Your task to perform on an android device: turn off improve location accuracy Image 0: 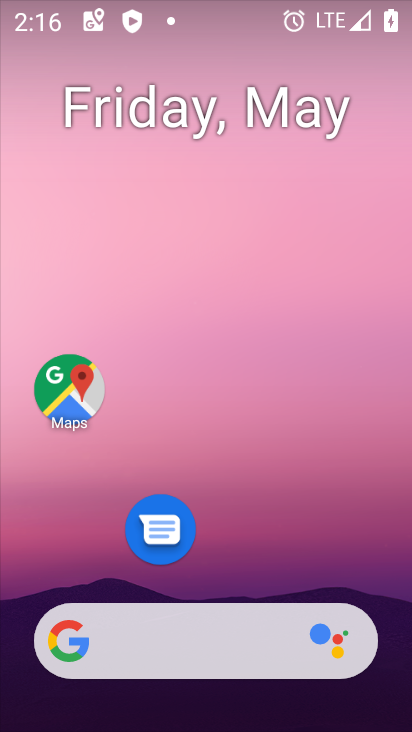
Step 0: drag from (212, 580) to (274, 205)
Your task to perform on an android device: turn off improve location accuracy Image 1: 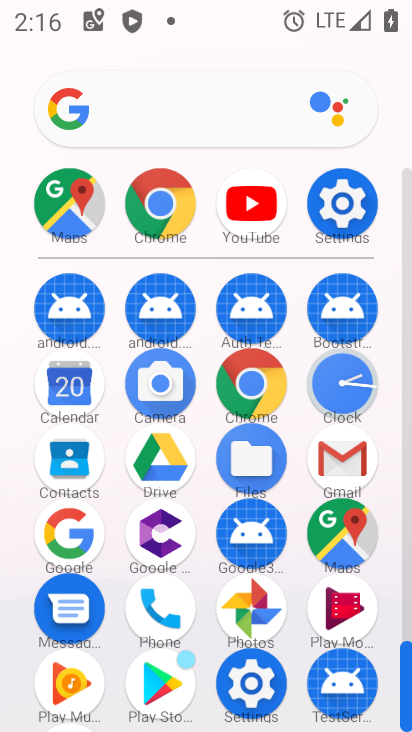
Step 1: click (332, 191)
Your task to perform on an android device: turn off improve location accuracy Image 2: 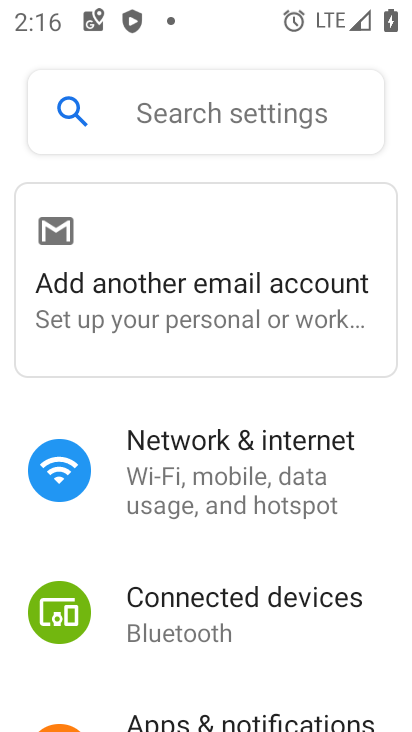
Step 2: drag from (205, 510) to (212, 215)
Your task to perform on an android device: turn off improve location accuracy Image 3: 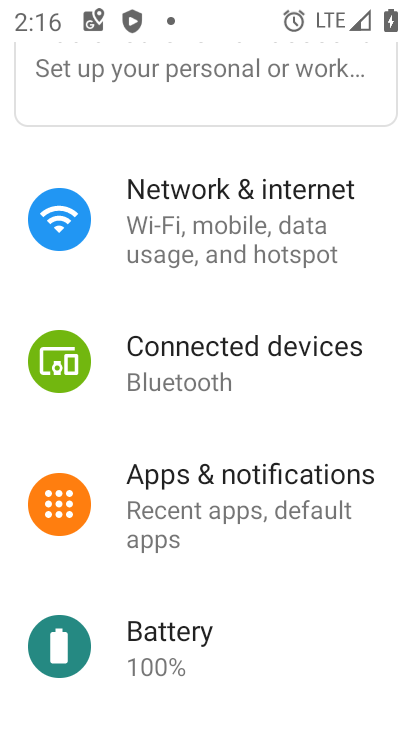
Step 3: drag from (233, 382) to (253, 204)
Your task to perform on an android device: turn off improve location accuracy Image 4: 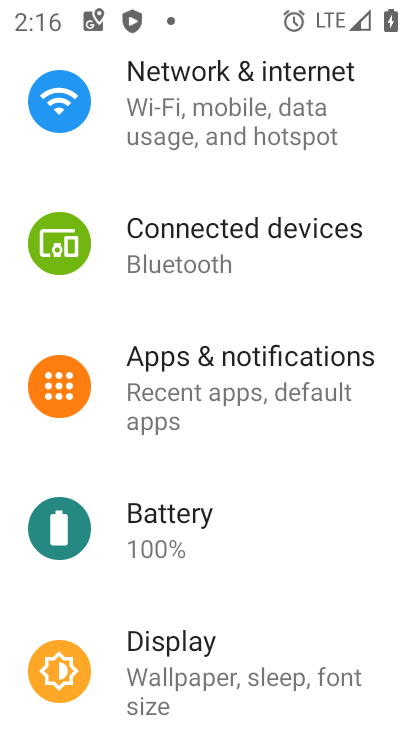
Step 4: drag from (233, 596) to (271, 292)
Your task to perform on an android device: turn off improve location accuracy Image 5: 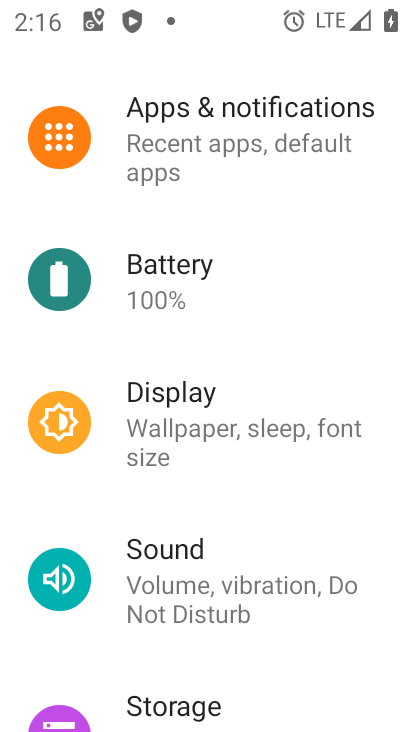
Step 5: drag from (257, 616) to (298, 336)
Your task to perform on an android device: turn off improve location accuracy Image 6: 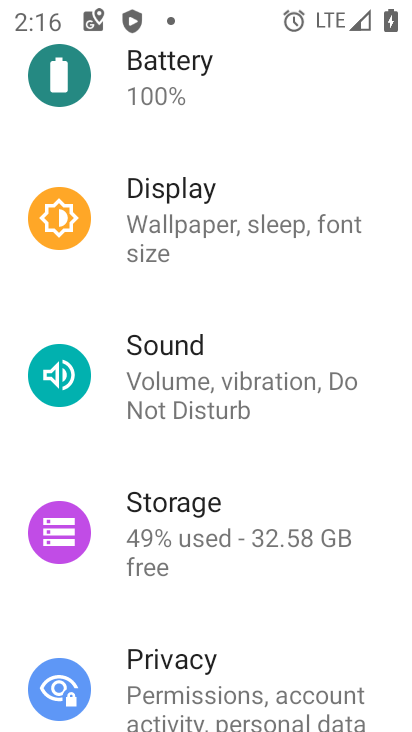
Step 6: drag from (263, 624) to (285, 255)
Your task to perform on an android device: turn off improve location accuracy Image 7: 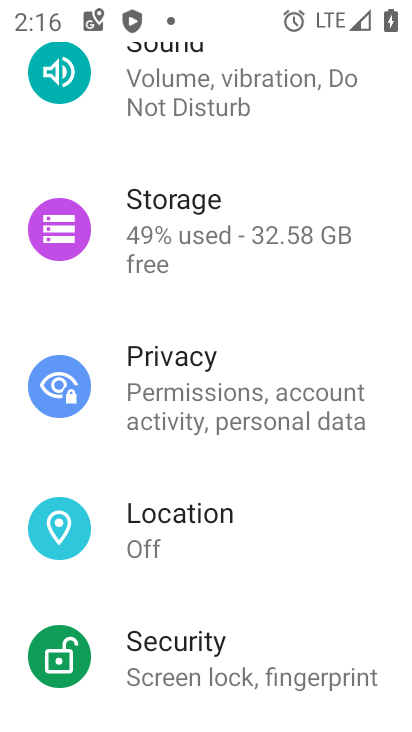
Step 7: drag from (250, 599) to (304, 297)
Your task to perform on an android device: turn off improve location accuracy Image 8: 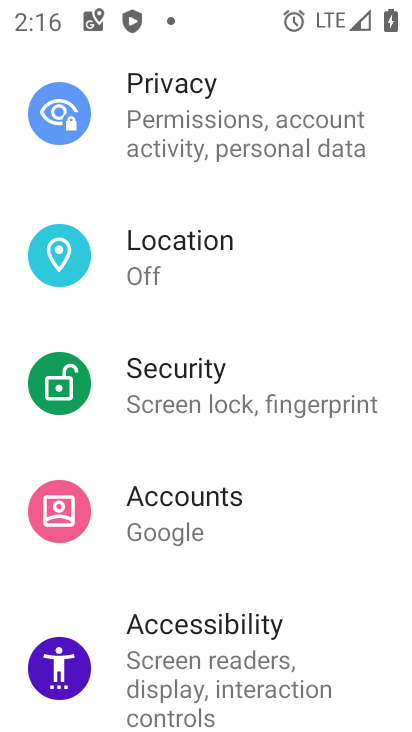
Step 8: drag from (186, 612) to (280, 298)
Your task to perform on an android device: turn off improve location accuracy Image 9: 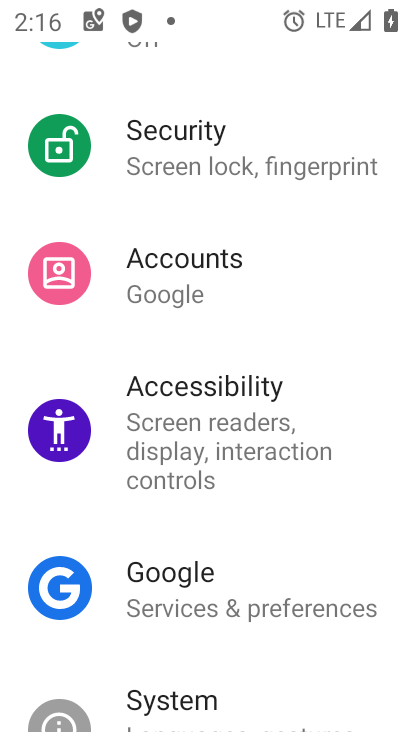
Step 9: drag from (258, 252) to (368, 719)
Your task to perform on an android device: turn off improve location accuracy Image 10: 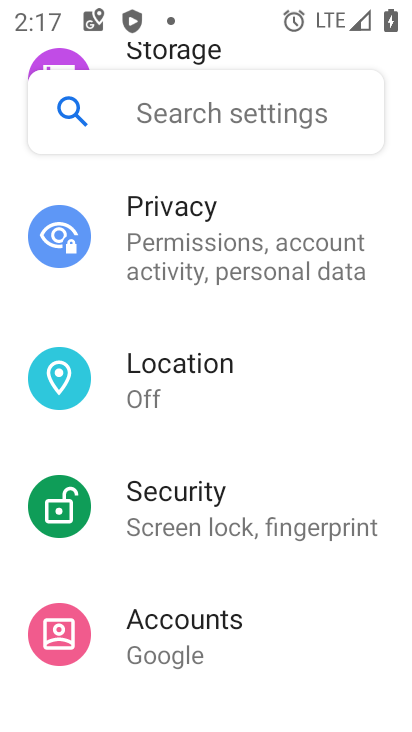
Step 10: click (184, 364)
Your task to perform on an android device: turn off improve location accuracy Image 11: 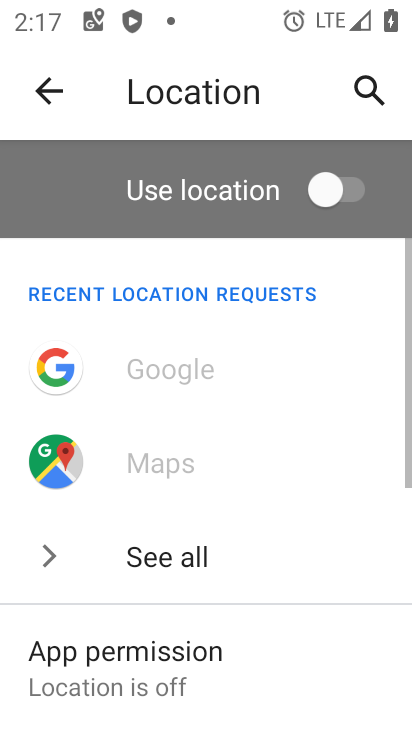
Step 11: drag from (220, 516) to (219, 261)
Your task to perform on an android device: turn off improve location accuracy Image 12: 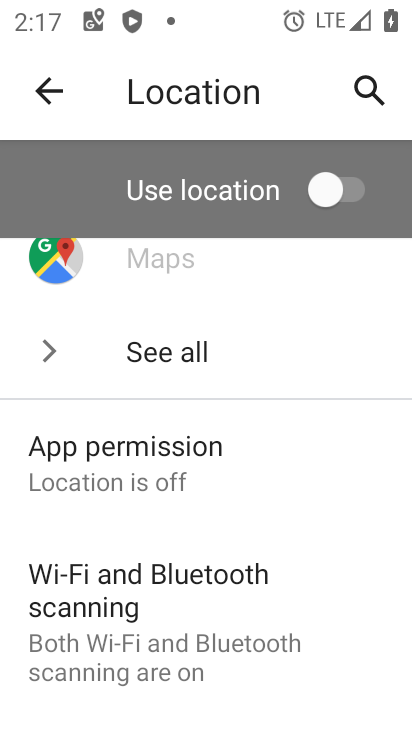
Step 12: drag from (172, 582) to (177, 430)
Your task to perform on an android device: turn off improve location accuracy Image 13: 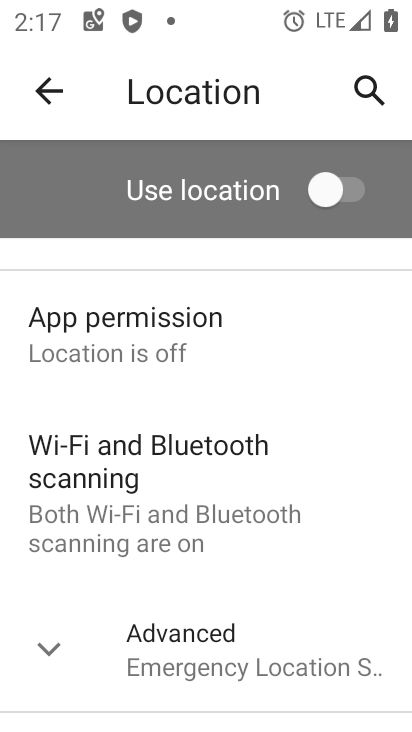
Step 13: click (155, 646)
Your task to perform on an android device: turn off improve location accuracy Image 14: 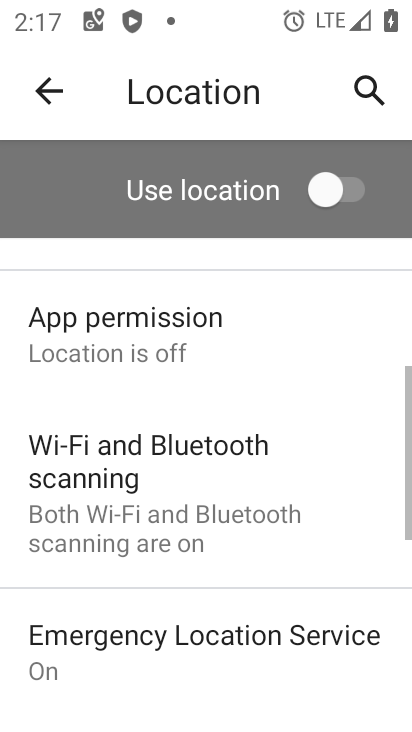
Step 14: drag from (155, 646) to (205, 280)
Your task to perform on an android device: turn off improve location accuracy Image 15: 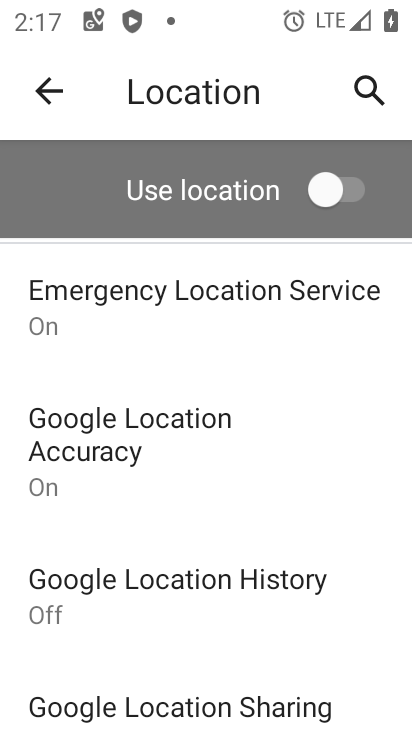
Step 15: click (132, 472)
Your task to perform on an android device: turn off improve location accuracy Image 16: 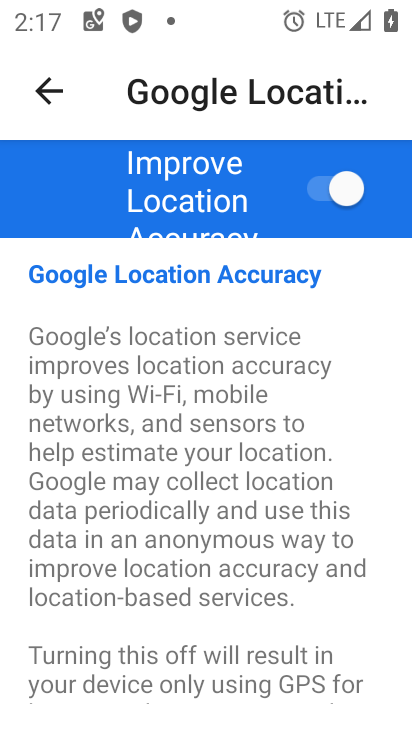
Step 16: drag from (288, 541) to (294, 305)
Your task to perform on an android device: turn off improve location accuracy Image 17: 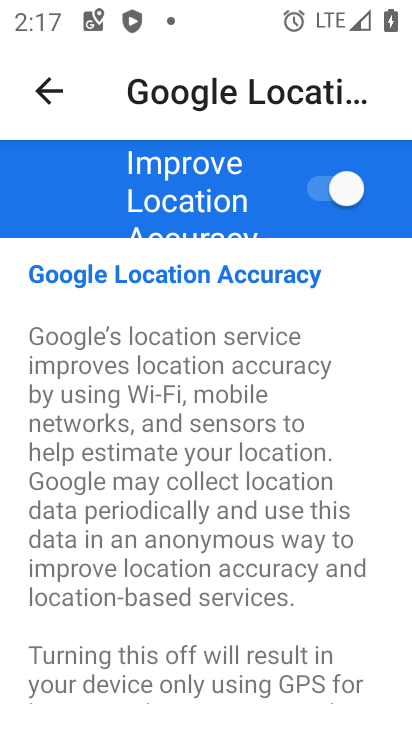
Step 17: click (348, 211)
Your task to perform on an android device: turn off improve location accuracy Image 18: 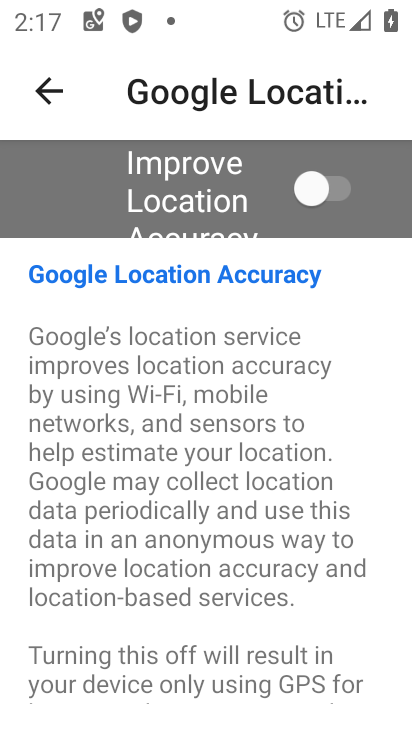
Step 18: task complete